Your task to perform on an android device: create a new album in the google photos Image 0: 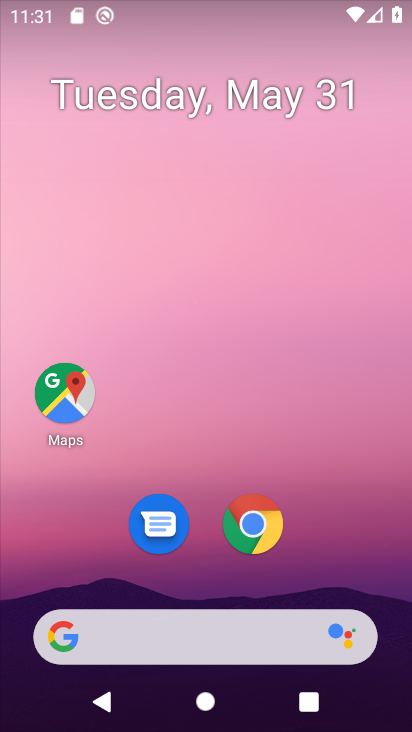
Step 0: drag from (329, 556) to (310, 40)
Your task to perform on an android device: create a new album in the google photos Image 1: 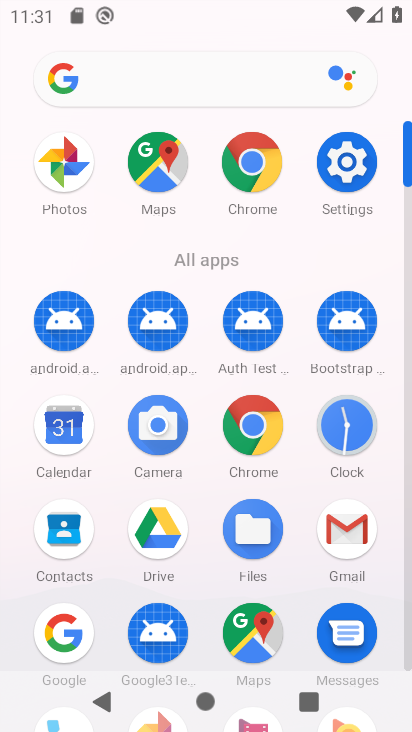
Step 1: click (51, 172)
Your task to perform on an android device: create a new album in the google photos Image 2: 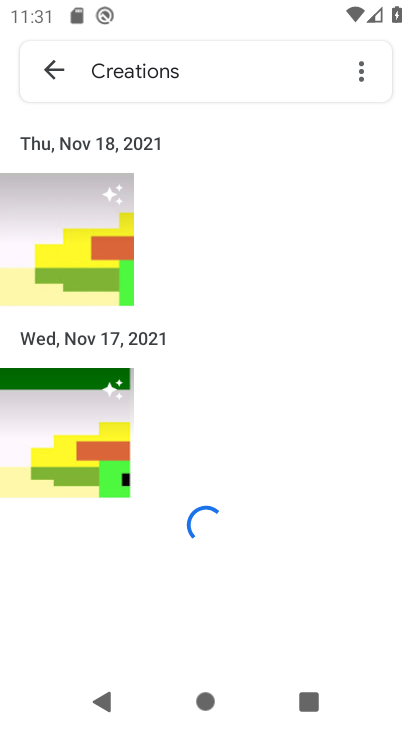
Step 2: click (51, 69)
Your task to perform on an android device: create a new album in the google photos Image 3: 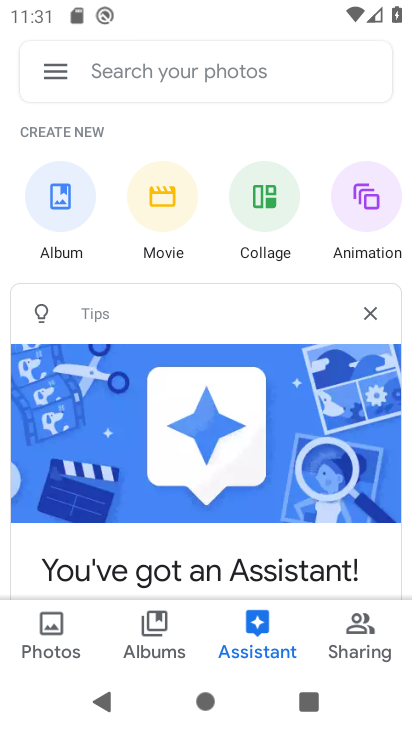
Step 3: click (143, 636)
Your task to perform on an android device: create a new album in the google photos Image 4: 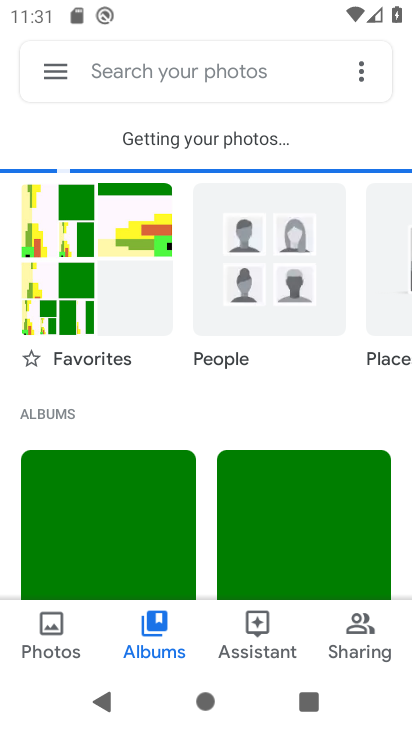
Step 4: click (366, 77)
Your task to perform on an android device: create a new album in the google photos Image 5: 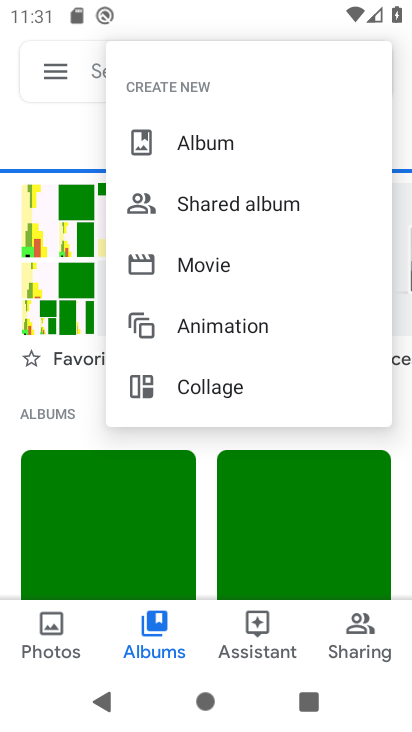
Step 5: click (309, 136)
Your task to perform on an android device: create a new album in the google photos Image 6: 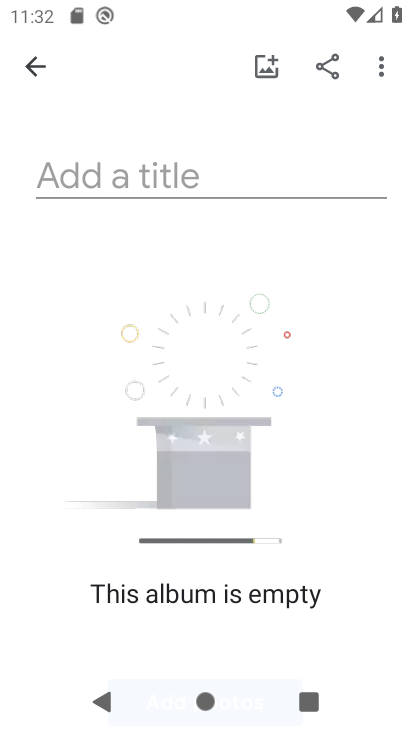
Step 6: click (247, 179)
Your task to perform on an android device: create a new album in the google photos Image 7: 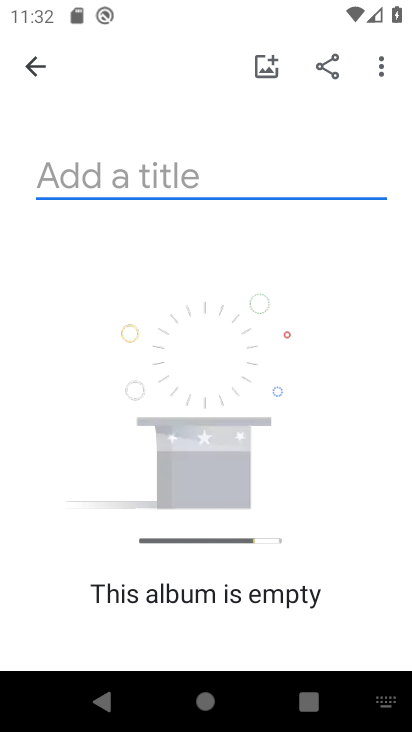
Step 7: type "Amer Fort Bharat"
Your task to perform on an android device: create a new album in the google photos Image 8: 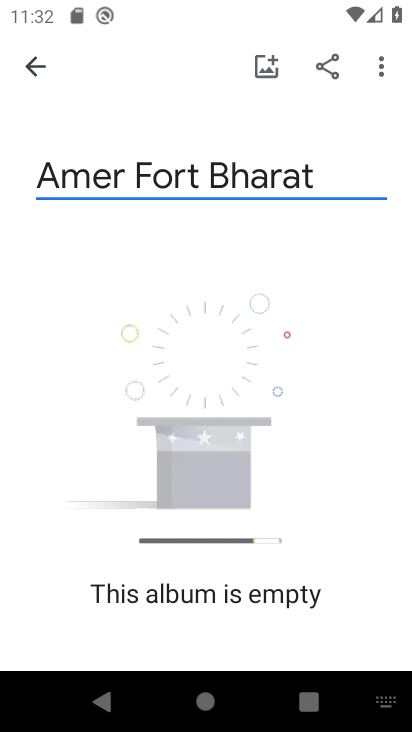
Step 8: drag from (217, 481) to (211, 196)
Your task to perform on an android device: create a new album in the google photos Image 9: 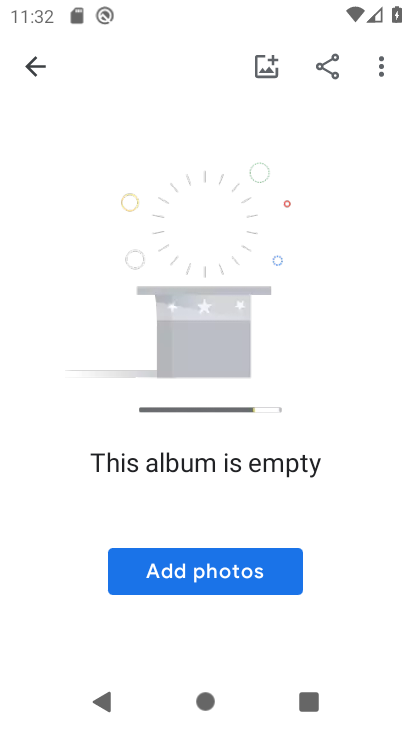
Step 9: click (231, 562)
Your task to perform on an android device: create a new album in the google photos Image 10: 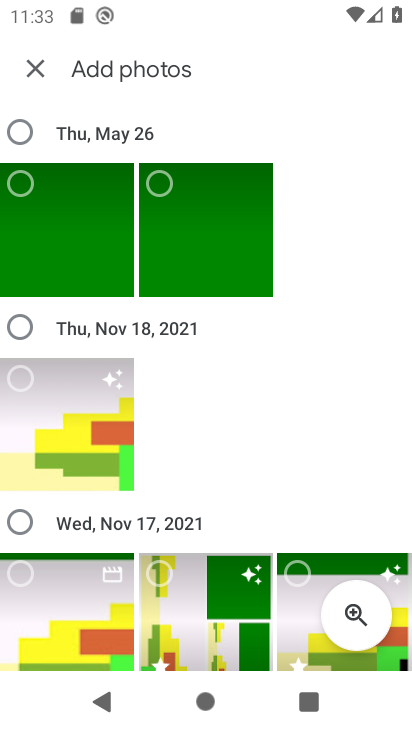
Step 10: click (18, 518)
Your task to perform on an android device: create a new album in the google photos Image 11: 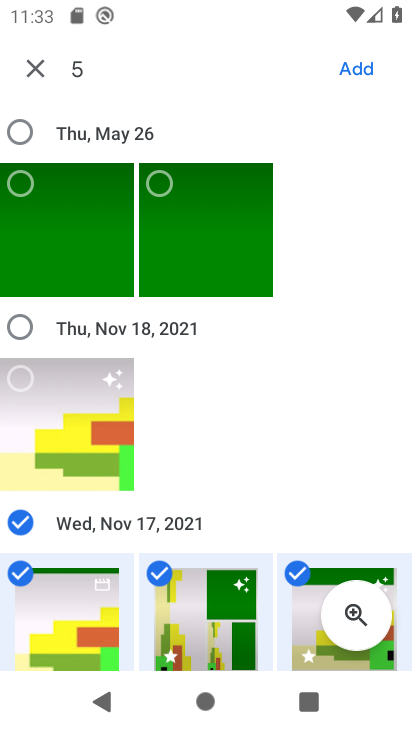
Step 11: click (359, 66)
Your task to perform on an android device: create a new album in the google photos Image 12: 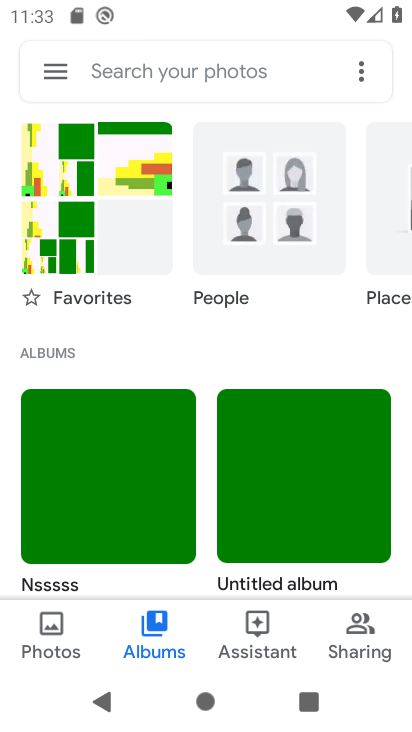
Step 12: task complete